Your task to perform on an android device: open app "Instagram" (install if not already installed) Image 0: 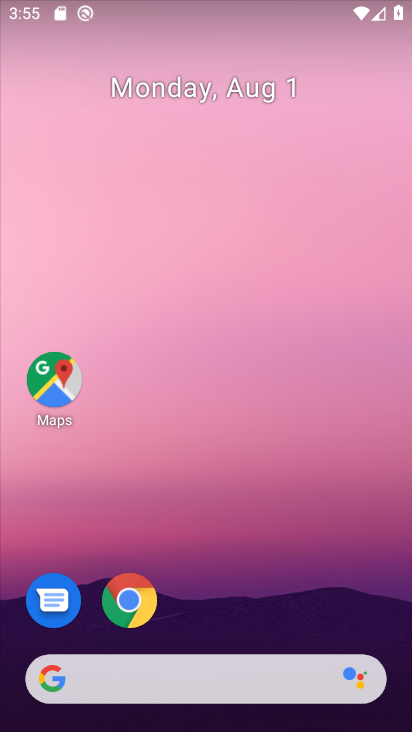
Step 0: drag from (209, 597) to (282, 99)
Your task to perform on an android device: open app "Instagram" (install if not already installed) Image 1: 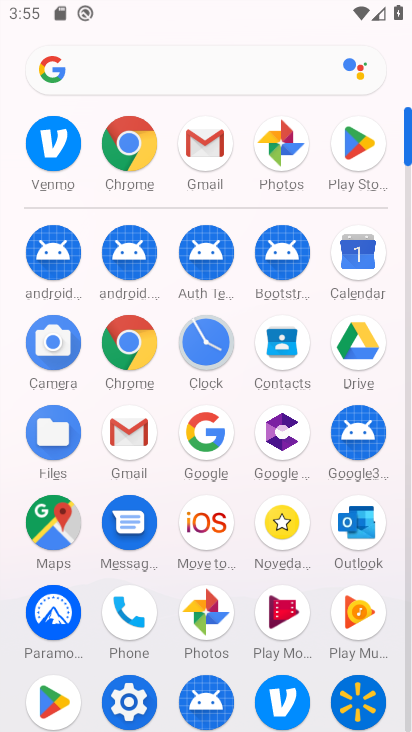
Step 1: click (351, 144)
Your task to perform on an android device: open app "Instagram" (install if not already installed) Image 2: 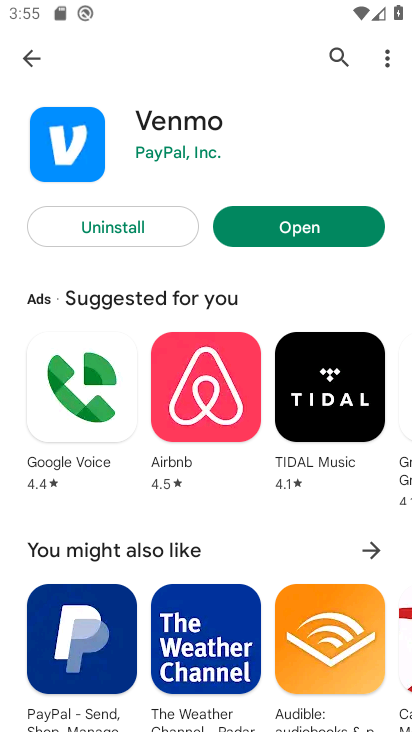
Step 2: click (273, 225)
Your task to perform on an android device: open app "Instagram" (install if not already installed) Image 3: 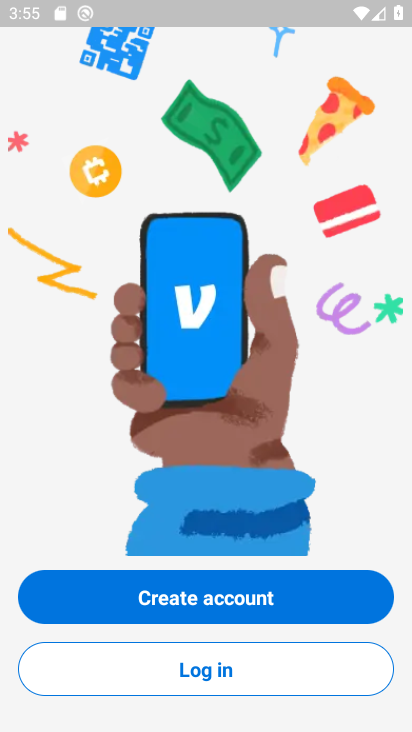
Step 3: press back button
Your task to perform on an android device: open app "Instagram" (install if not already installed) Image 4: 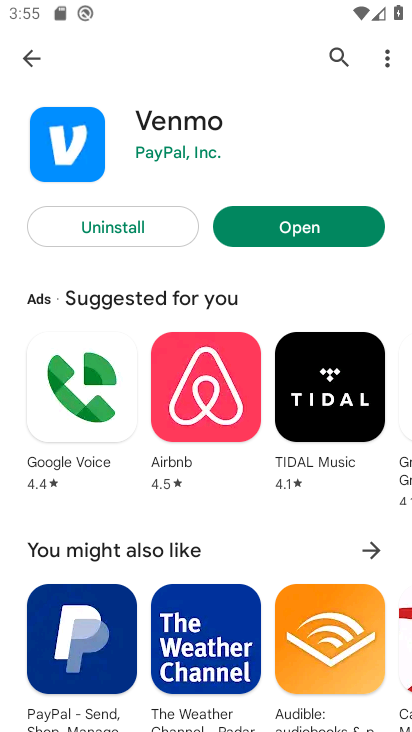
Step 4: click (331, 49)
Your task to perform on an android device: open app "Instagram" (install if not already installed) Image 5: 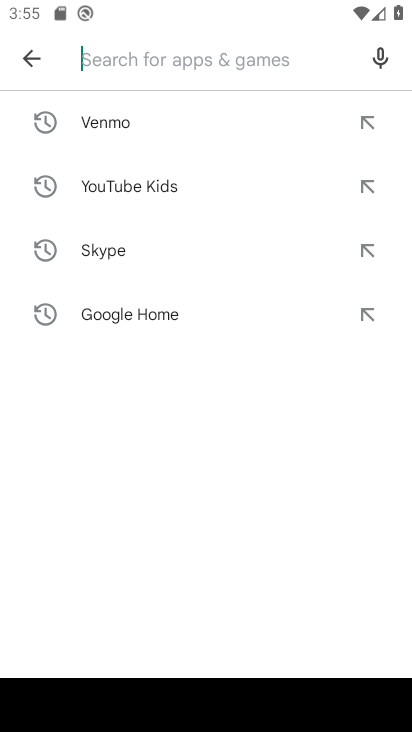
Step 5: type "Instagram"
Your task to perform on an android device: open app "Instagram" (install if not already installed) Image 6: 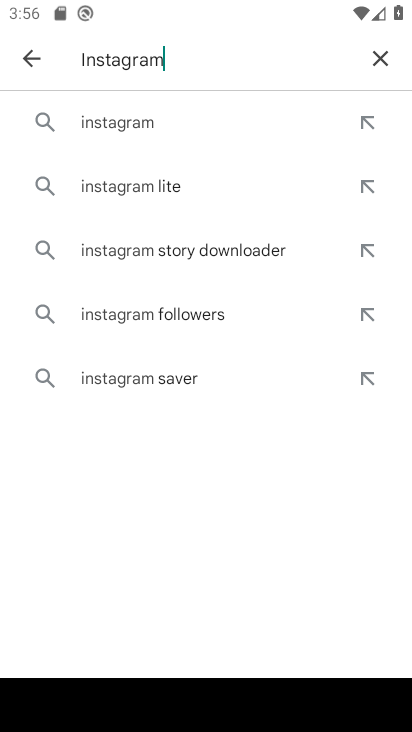
Step 6: click (225, 124)
Your task to perform on an android device: open app "Instagram" (install if not already installed) Image 7: 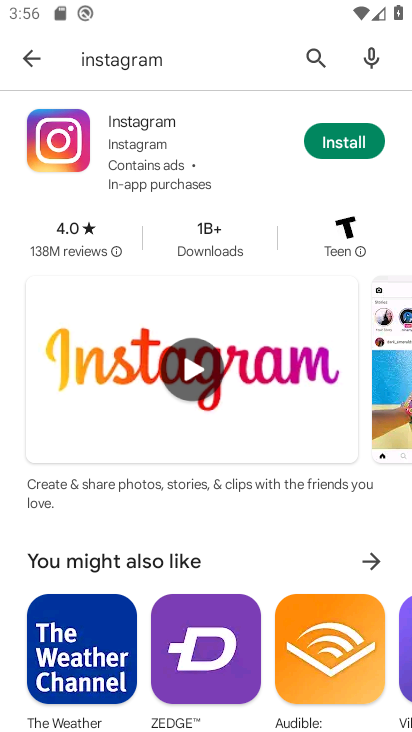
Step 7: click (359, 135)
Your task to perform on an android device: open app "Instagram" (install if not already installed) Image 8: 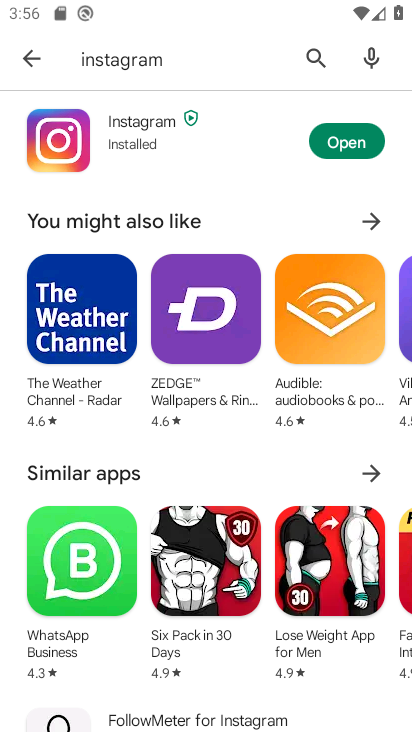
Step 8: click (366, 140)
Your task to perform on an android device: open app "Instagram" (install if not already installed) Image 9: 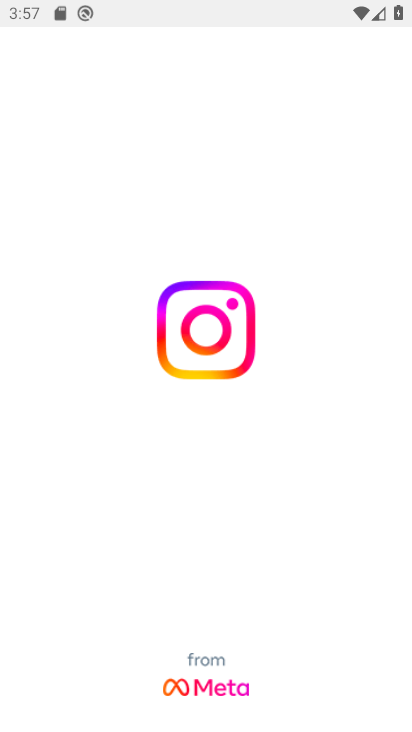
Step 9: task complete